Your task to perform on an android device: Go to battery settings Image 0: 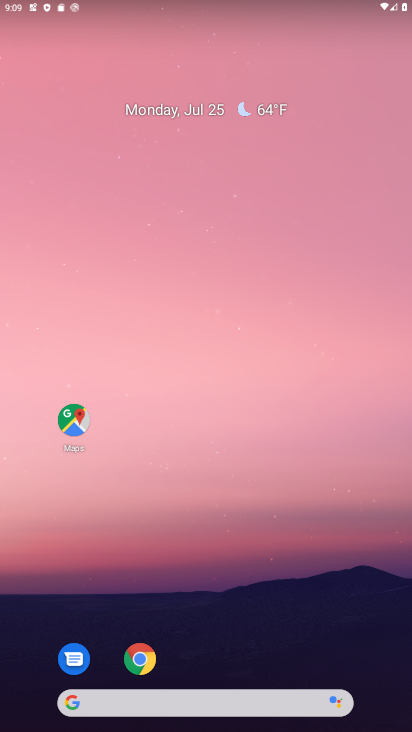
Step 0: press home button
Your task to perform on an android device: Go to battery settings Image 1: 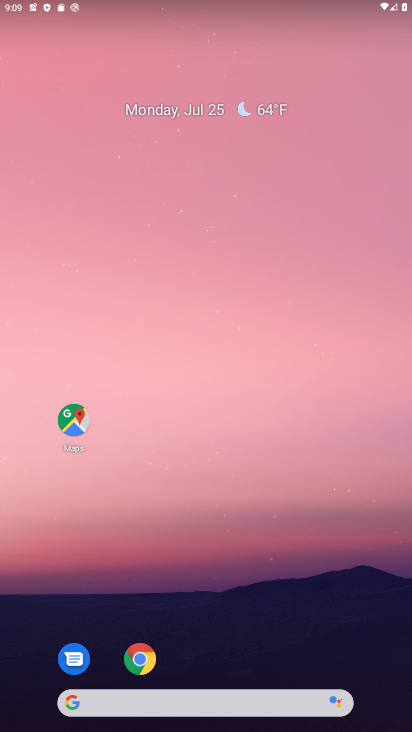
Step 1: drag from (352, 598) to (377, 128)
Your task to perform on an android device: Go to battery settings Image 2: 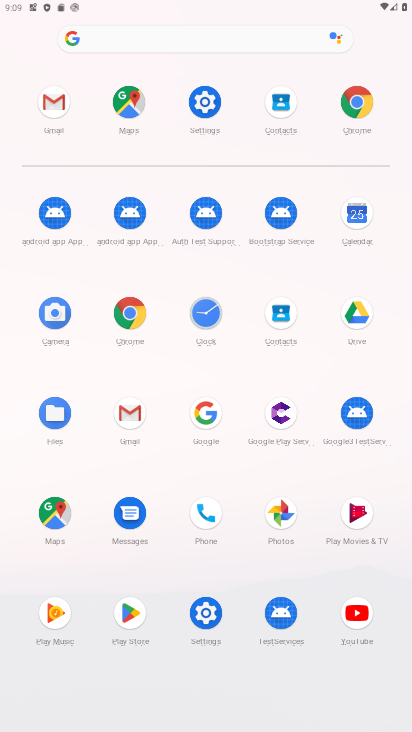
Step 2: click (206, 107)
Your task to perform on an android device: Go to battery settings Image 3: 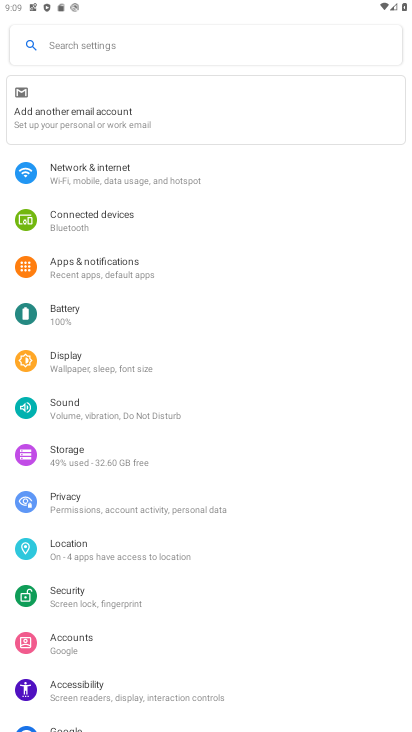
Step 3: drag from (277, 400) to (271, 309)
Your task to perform on an android device: Go to battery settings Image 4: 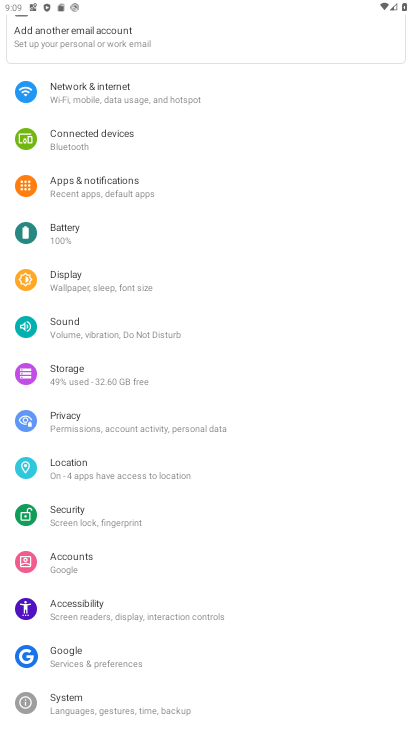
Step 4: drag from (267, 497) to (271, 389)
Your task to perform on an android device: Go to battery settings Image 5: 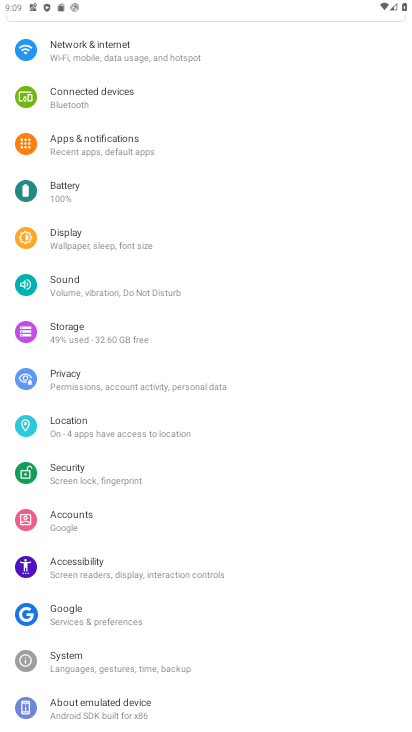
Step 5: drag from (256, 513) to (252, 421)
Your task to perform on an android device: Go to battery settings Image 6: 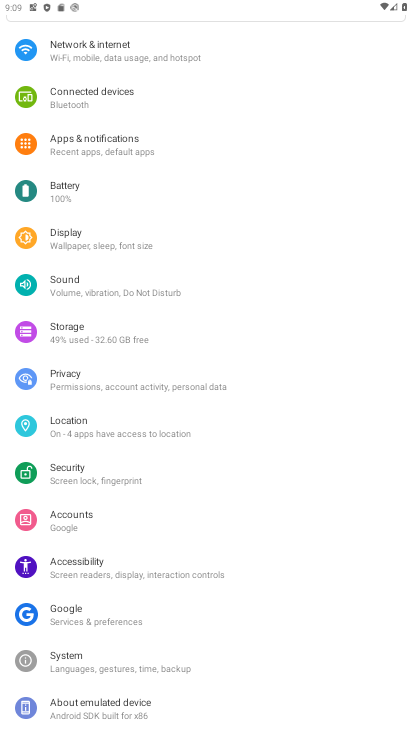
Step 6: drag from (251, 267) to (254, 358)
Your task to perform on an android device: Go to battery settings Image 7: 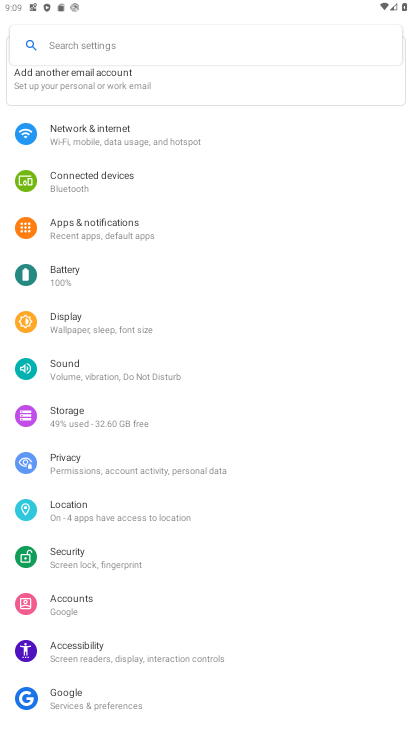
Step 7: drag from (269, 239) to (271, 345)
Your task to perform on an android device: Go to battery settings Image 8: 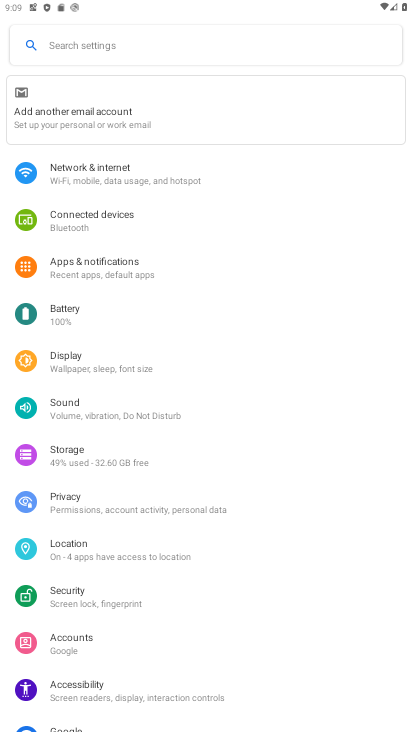
Step 8: click (115, 306)
Your task to perform on an android device: Go to battery settings Image 9: 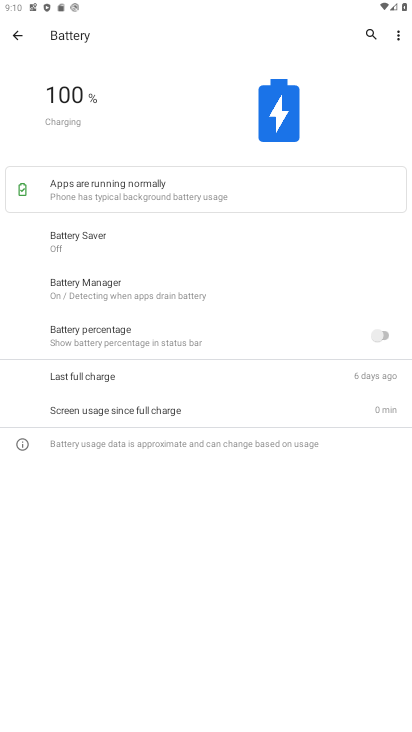
Step 9: task complete